Your task to perform on an android device: Clear the shopping cart on newegg. Add "bose soundlink mini" to the cart on newegg, then select checkout. Image 0: 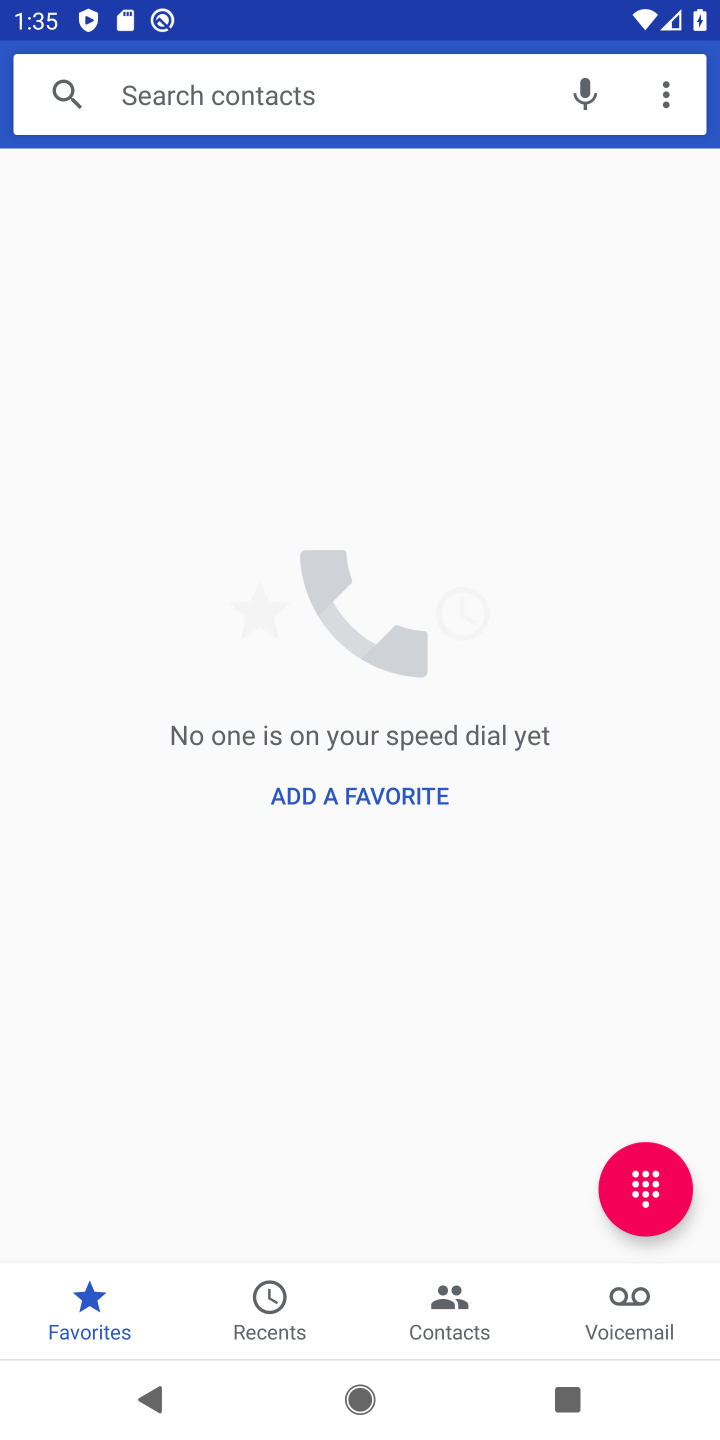
Step 0: press home button
Your task to perform on an android device: Clear the shopping cart on newegg. Add "bose soundlink mini" to the cart on newegg, then select checkout. Image 1: 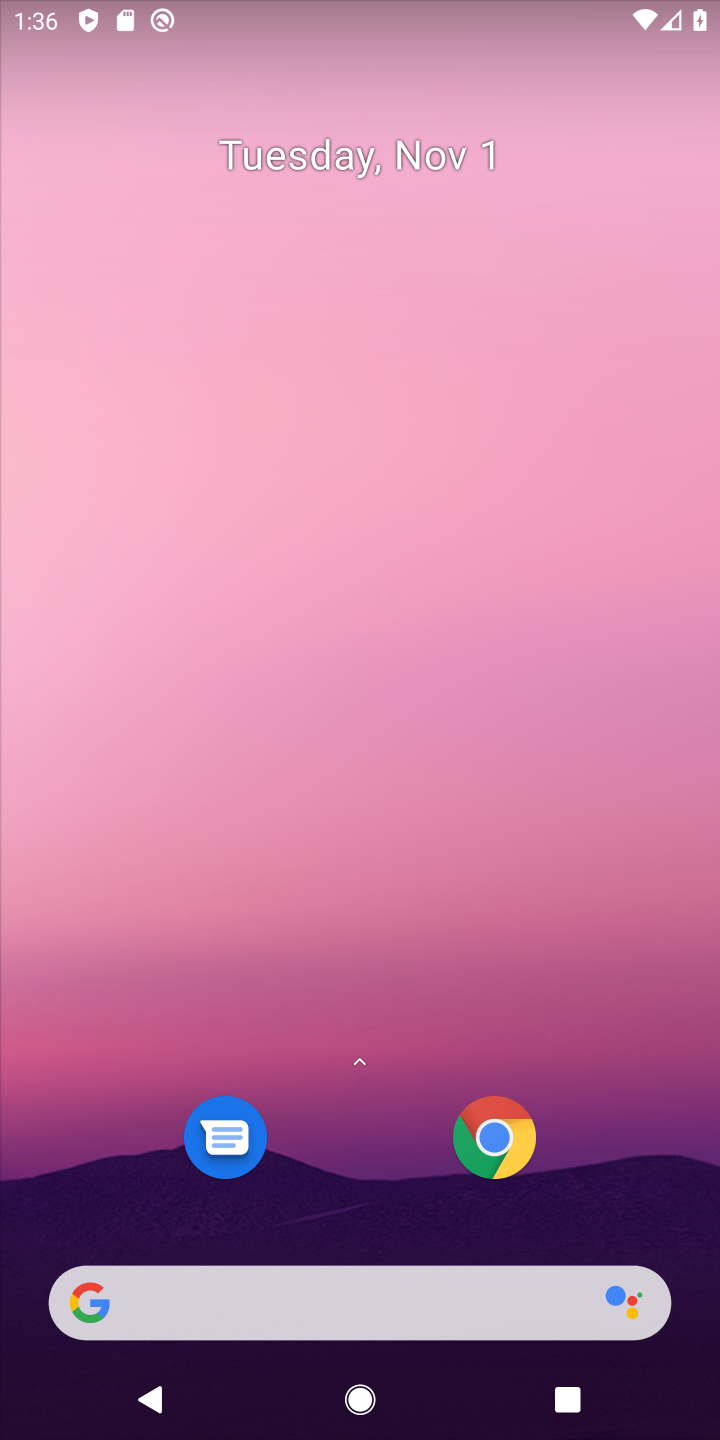
Step 1: click (429, 1301)
Your task to perform on an android device: Clear the shopping cart on newegg. Add "bose soundlink mini" to the cart on newegg, then select checkout. Image 2: 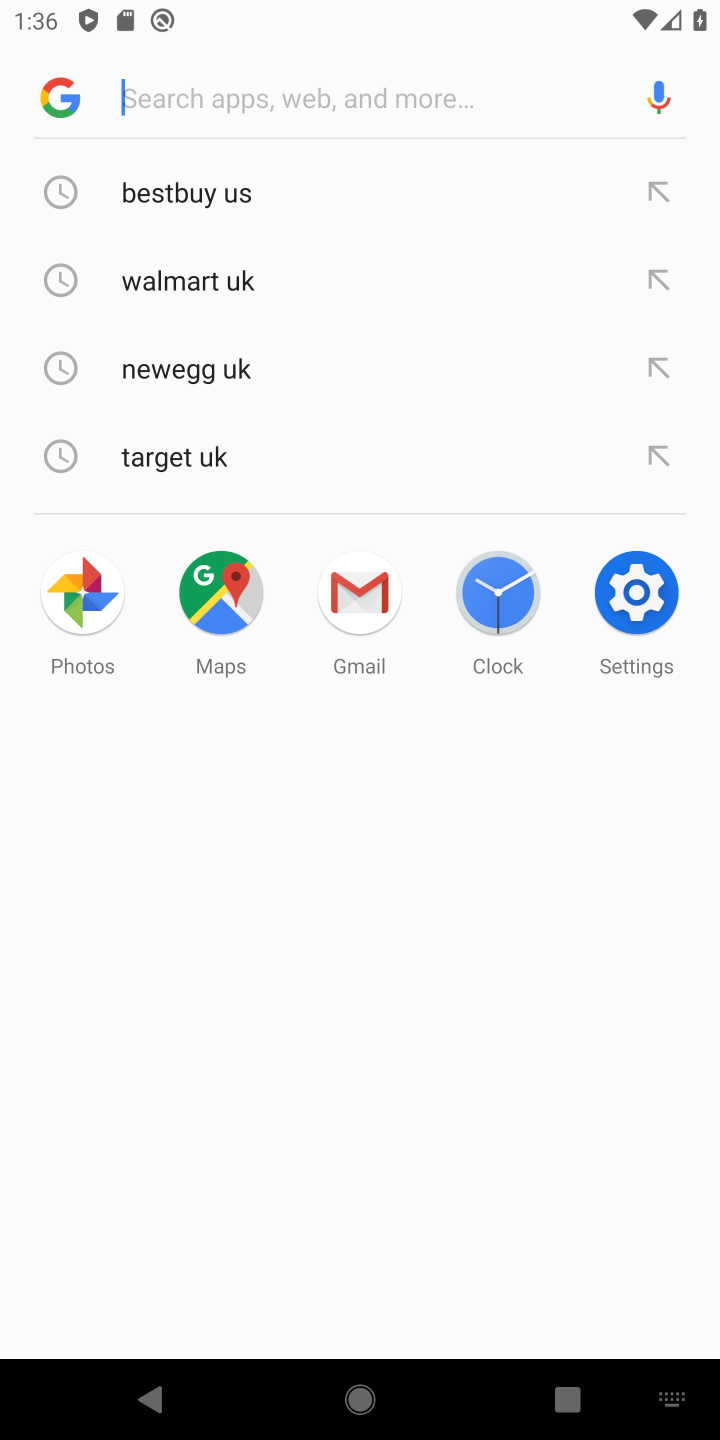
Step 2: click (352, 367)
Your task to perform on an android device: Clear the shopping cart on newegg. Add "bose soundlink mini" to the cart on newegg, then select checkout. Image 3: 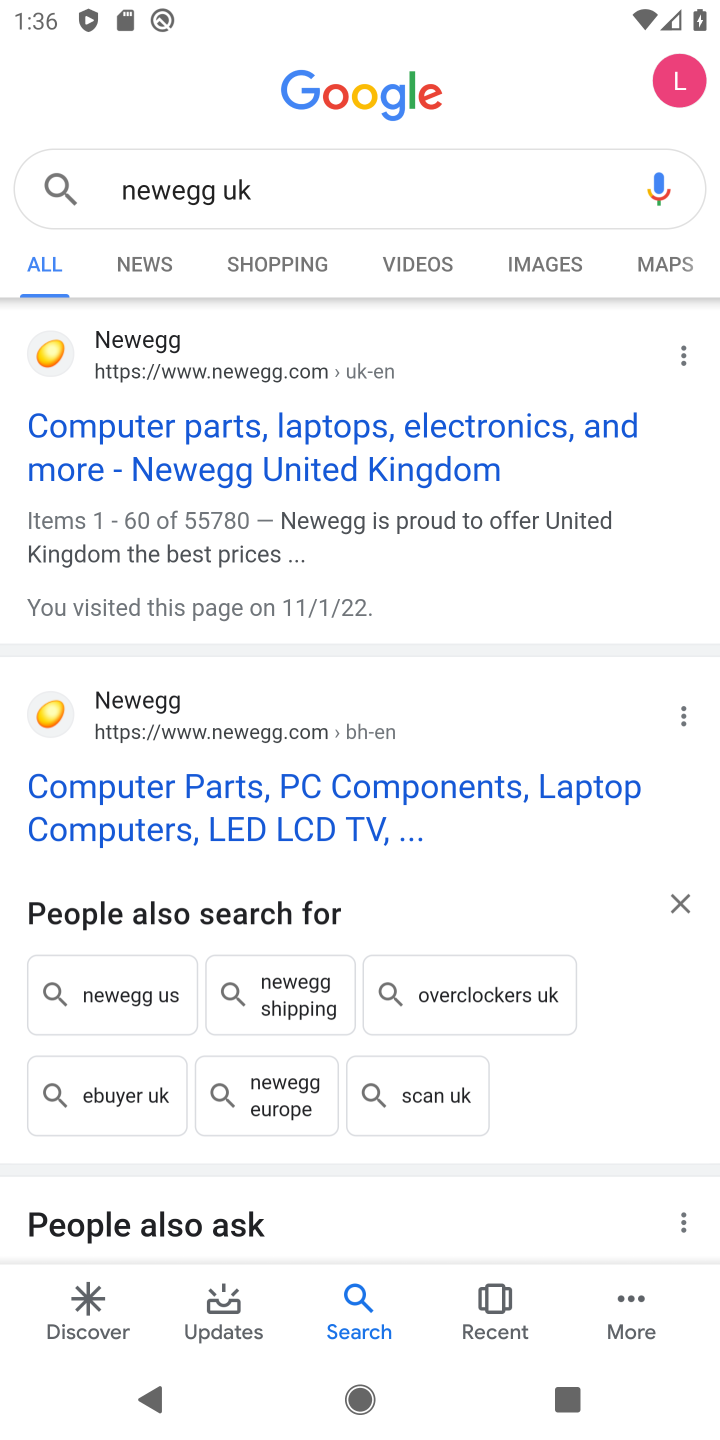
Step 3: click (361, 429)
Your task to perform on an android device: Clear the shopping cart on newegg. Add "bose soundlink mini" to the cart on newegg, then select checkout. Image 4: 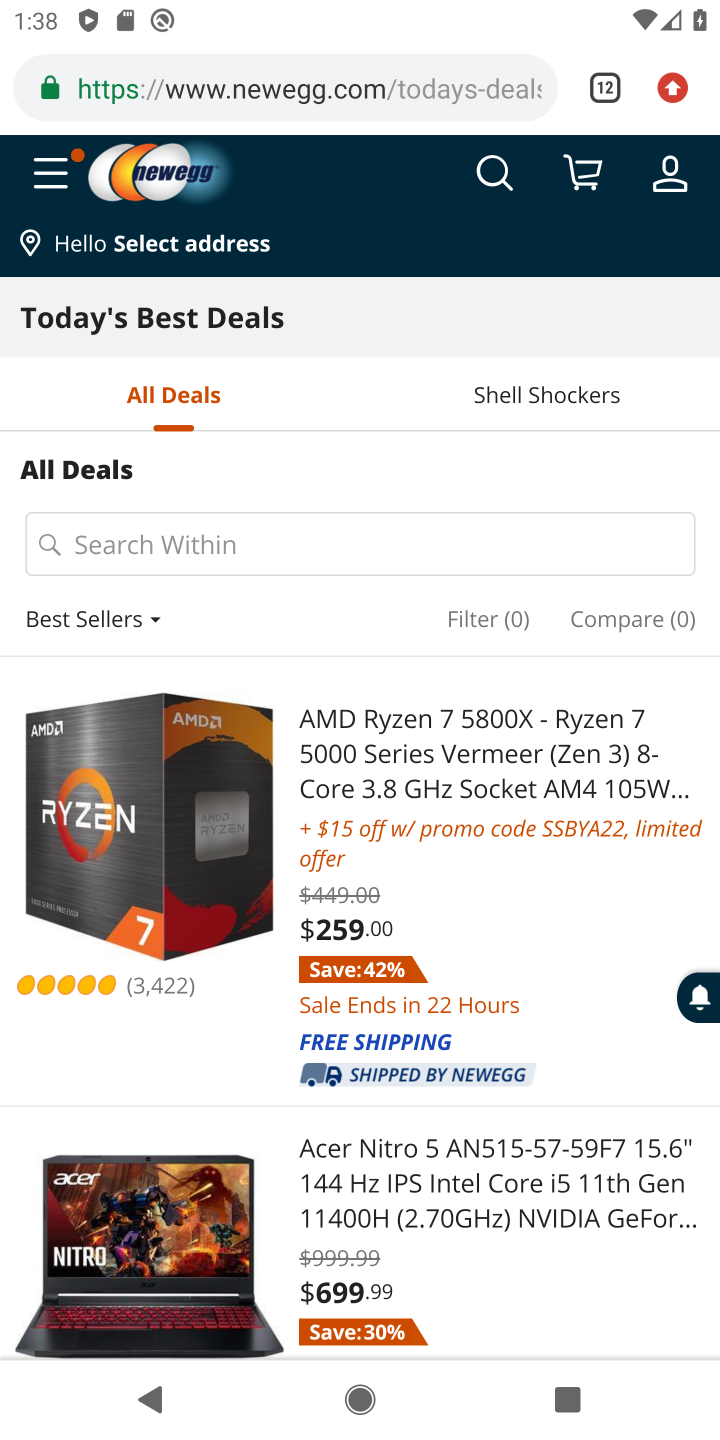
Step 4: click (348, 542)
Your task to perform on an android device: Clear the shopping cart on newegg. Add "bose soundlink mini" to the cart on newegg, then select checkout. Image 5: 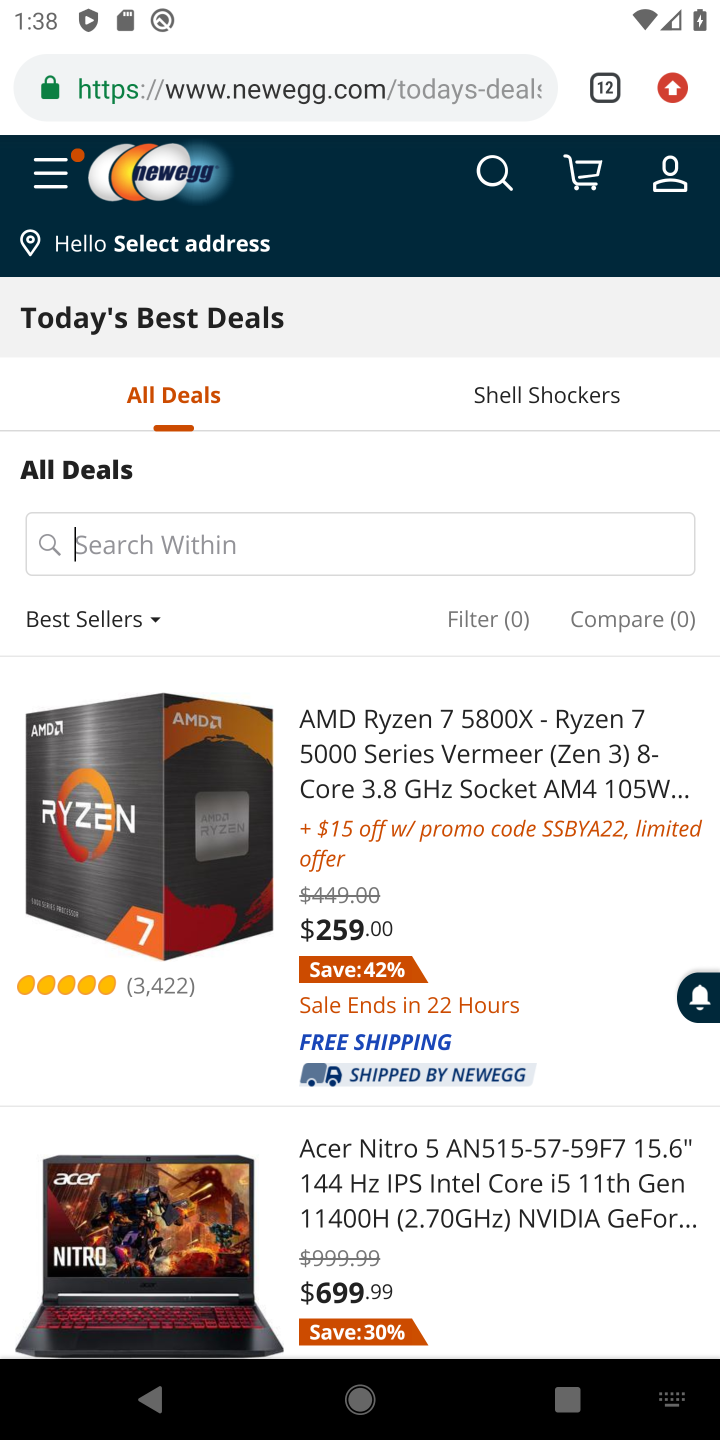
Step 5: type "bose soun link"
Your task to perform on an android device: Clear the shopping cart on newegg. Add "bose soundlink mini" to the cart on newegg, then select checkout. Image 6: 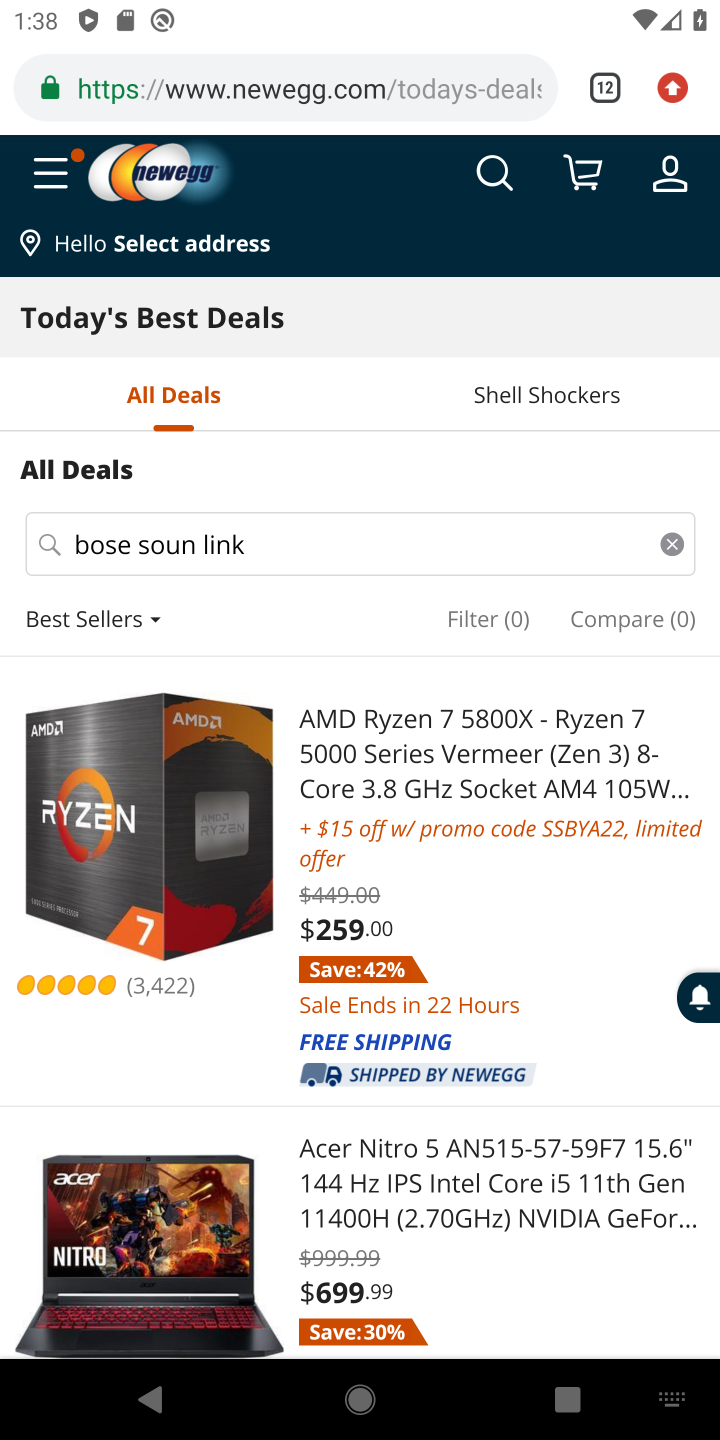
Step 6: click (416, 556)
Your task to perform on an android device: Clear the shopping cart on newegg. Add "bose soundlink mini" to the cart on newegg, then select checkout. Image 7: 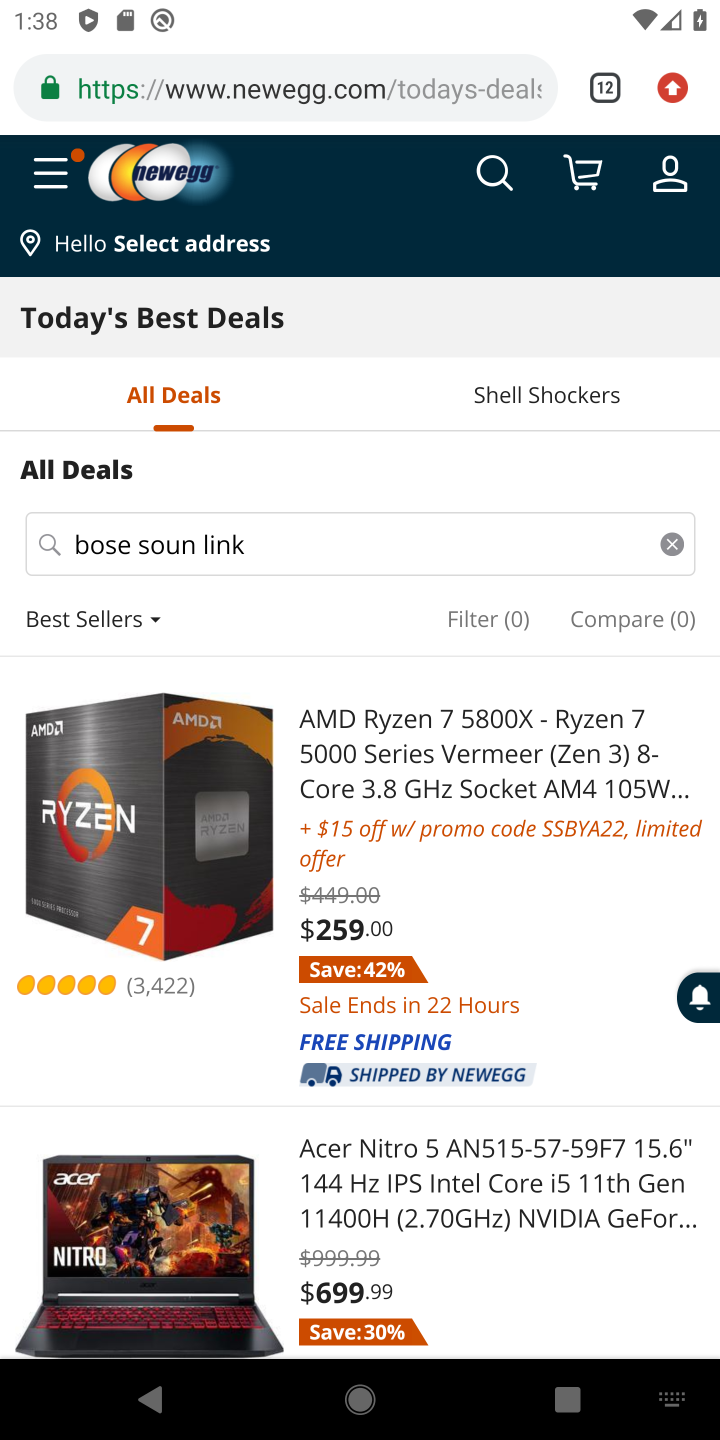
Step 7: task complete